Your task to perform on an android device: Open settings Image 0: 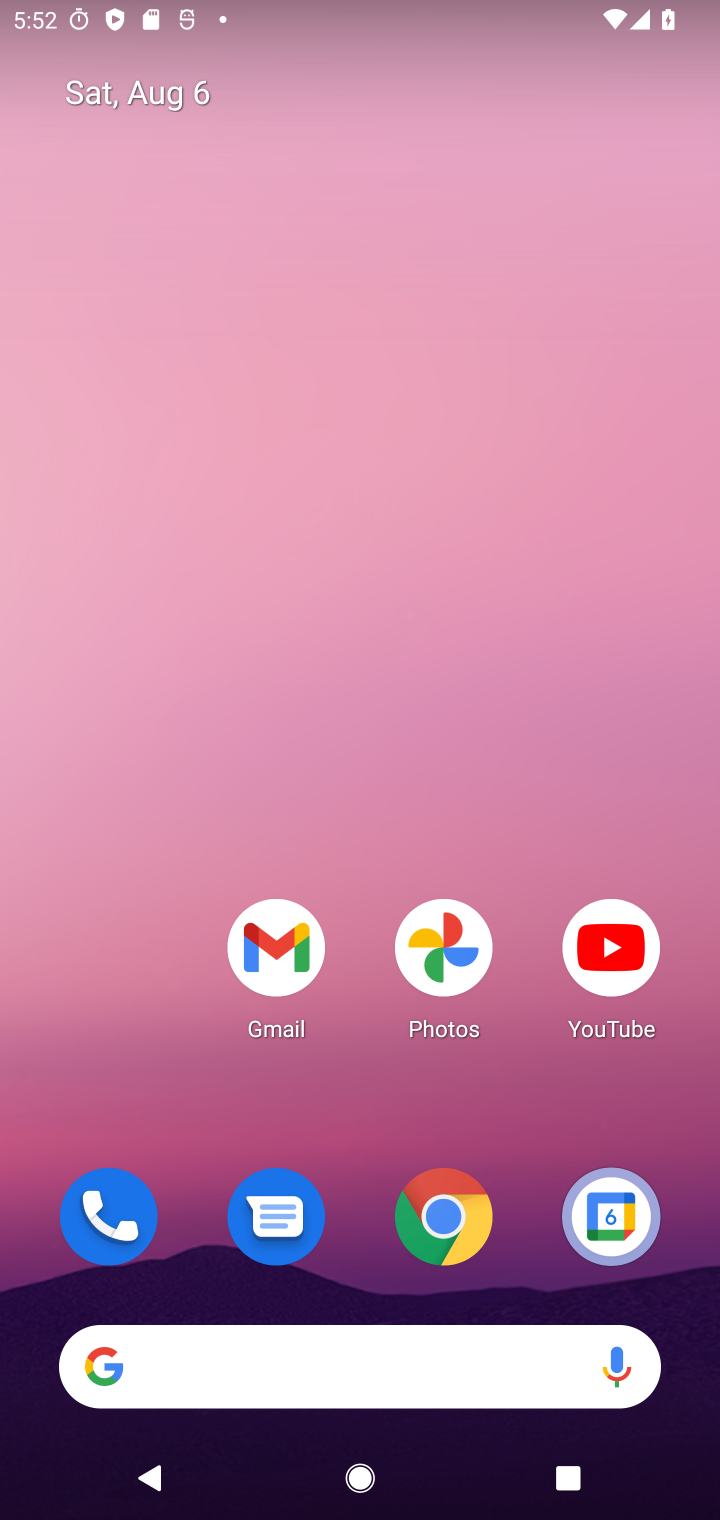
Step 0: drag from (373, 806) to (341, 202)
Your task to perform on an android device: Open settings Image 1: 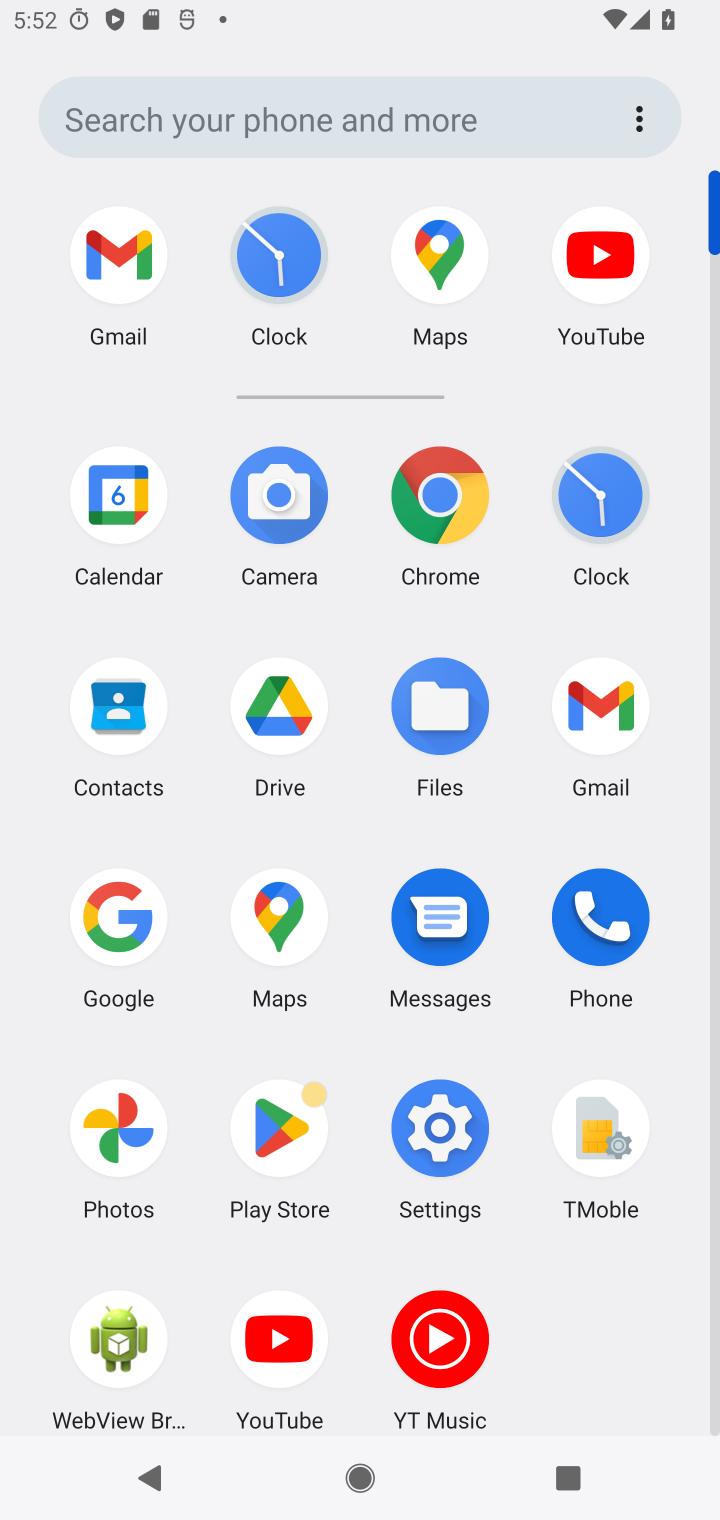
Step 1: click (437, 1103)
Your task to perform on an android device: Open settings Image 2: 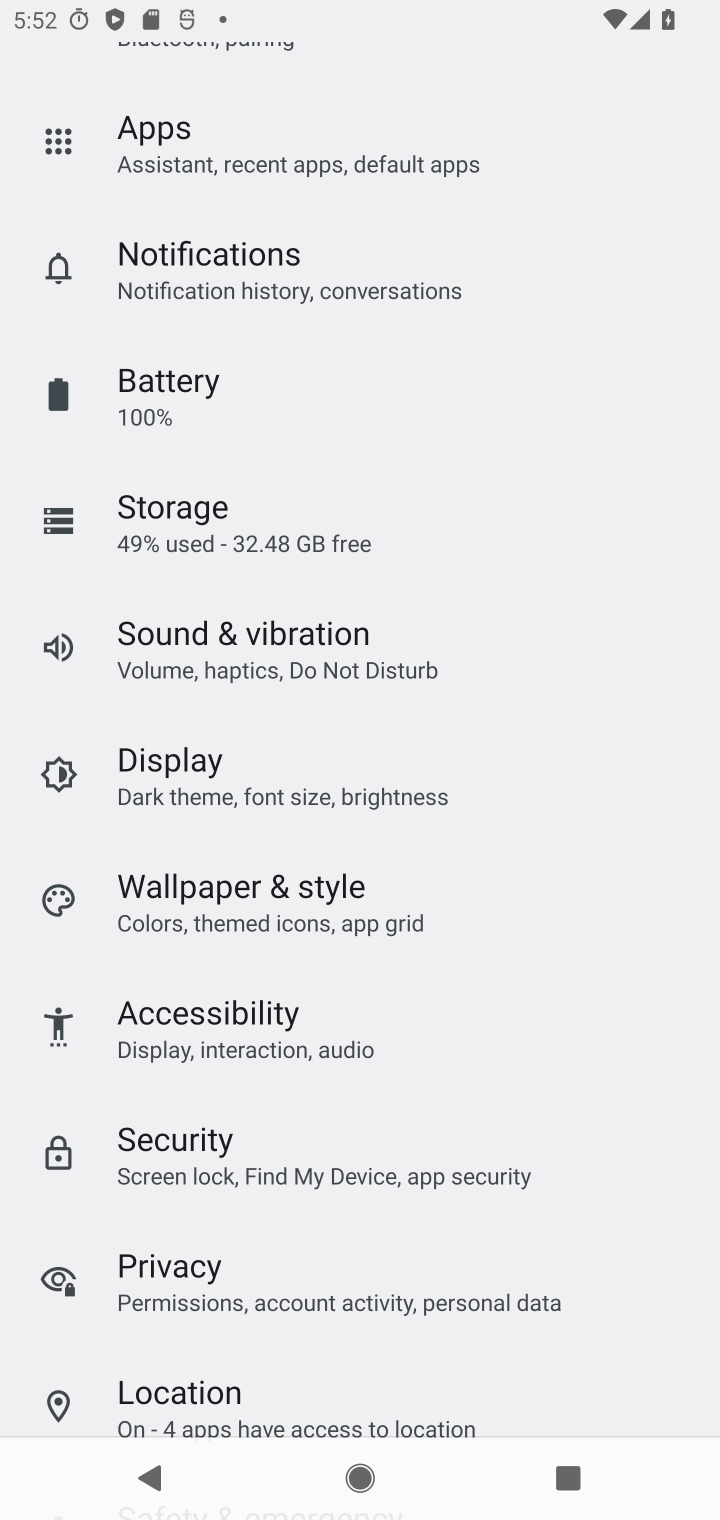
Step 2: task complete